Your task to perform on an android device: open a bookmark in the chrome app Image 0: 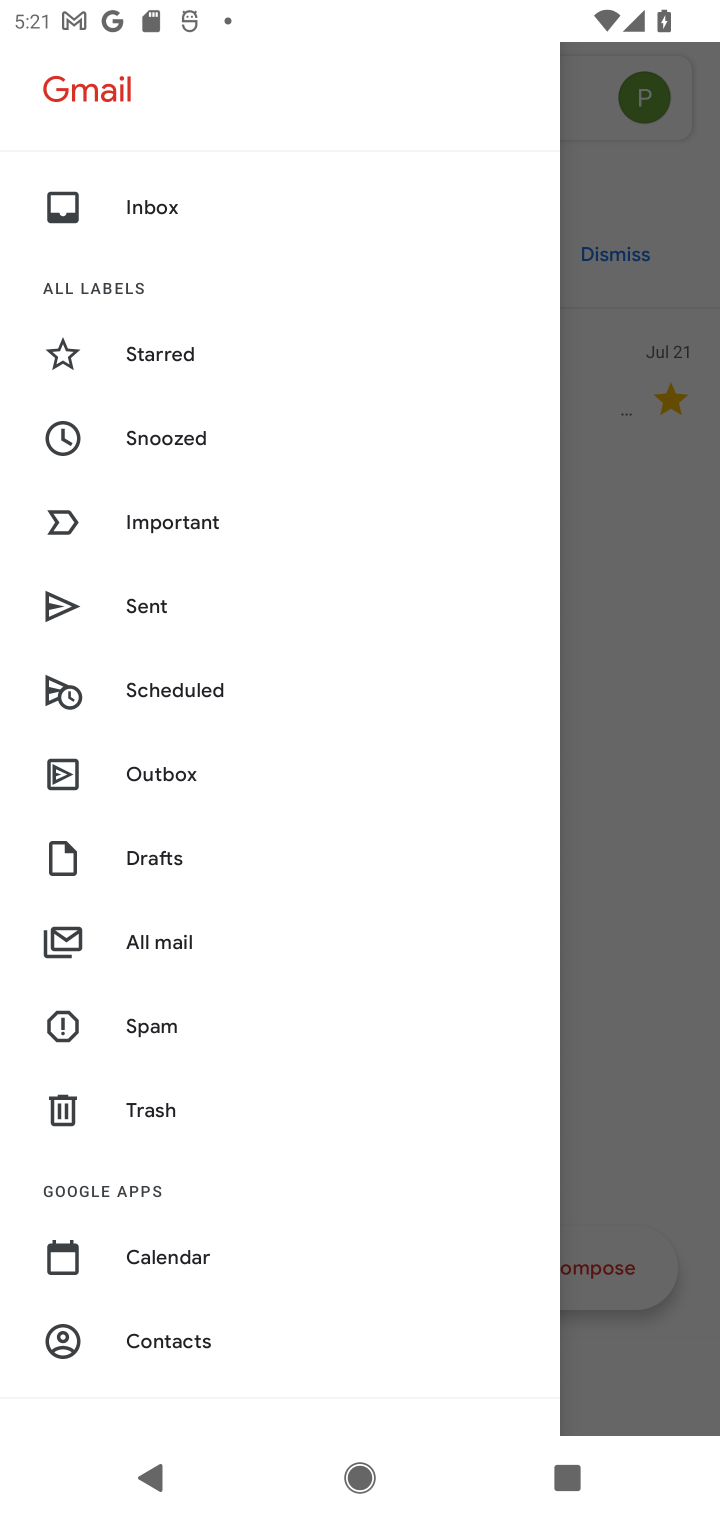
Step 0: press home button
Your task to perform on an android device: open a bookmark in the chrome app Image 1: 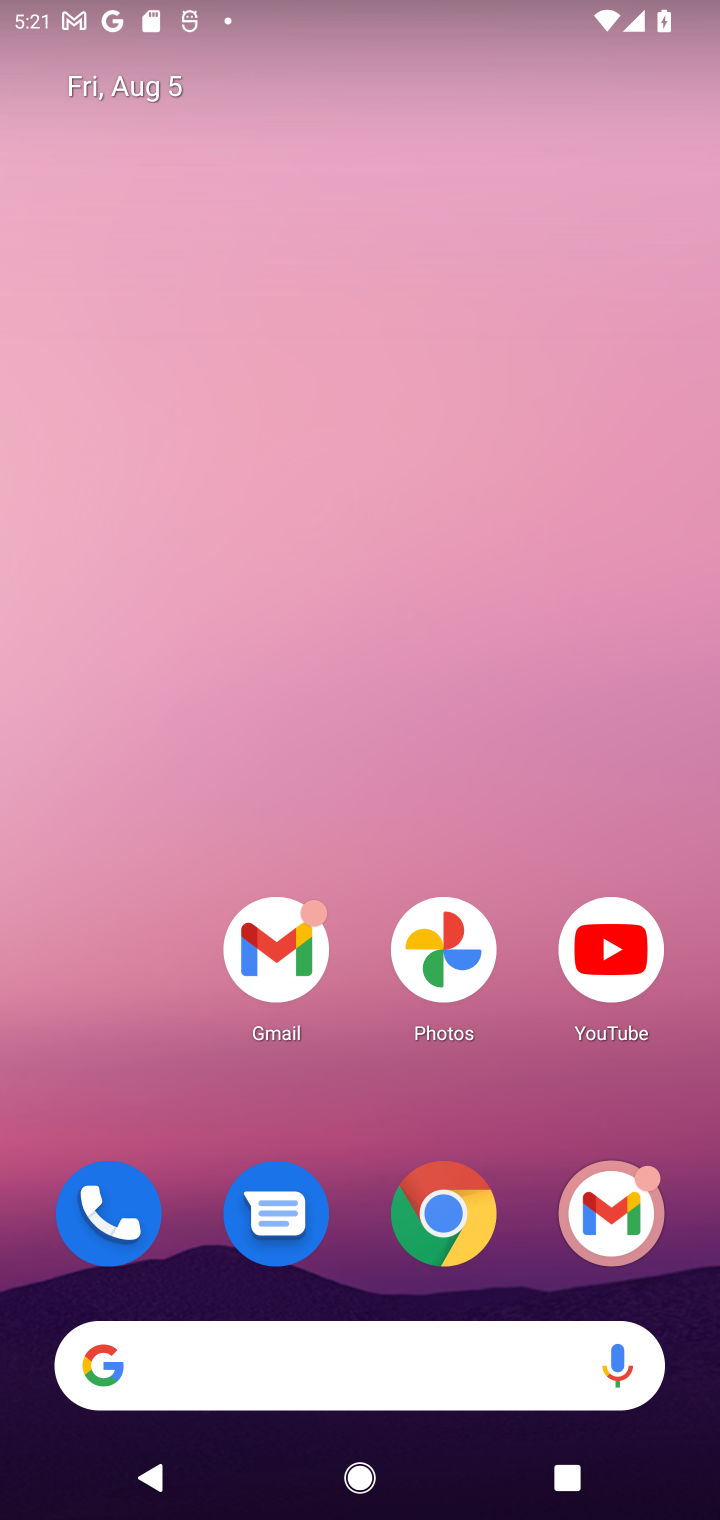
Step 1: click (479, 1202)
Your task to perform on an android device: open a bookmark in the chrome app Image 2: 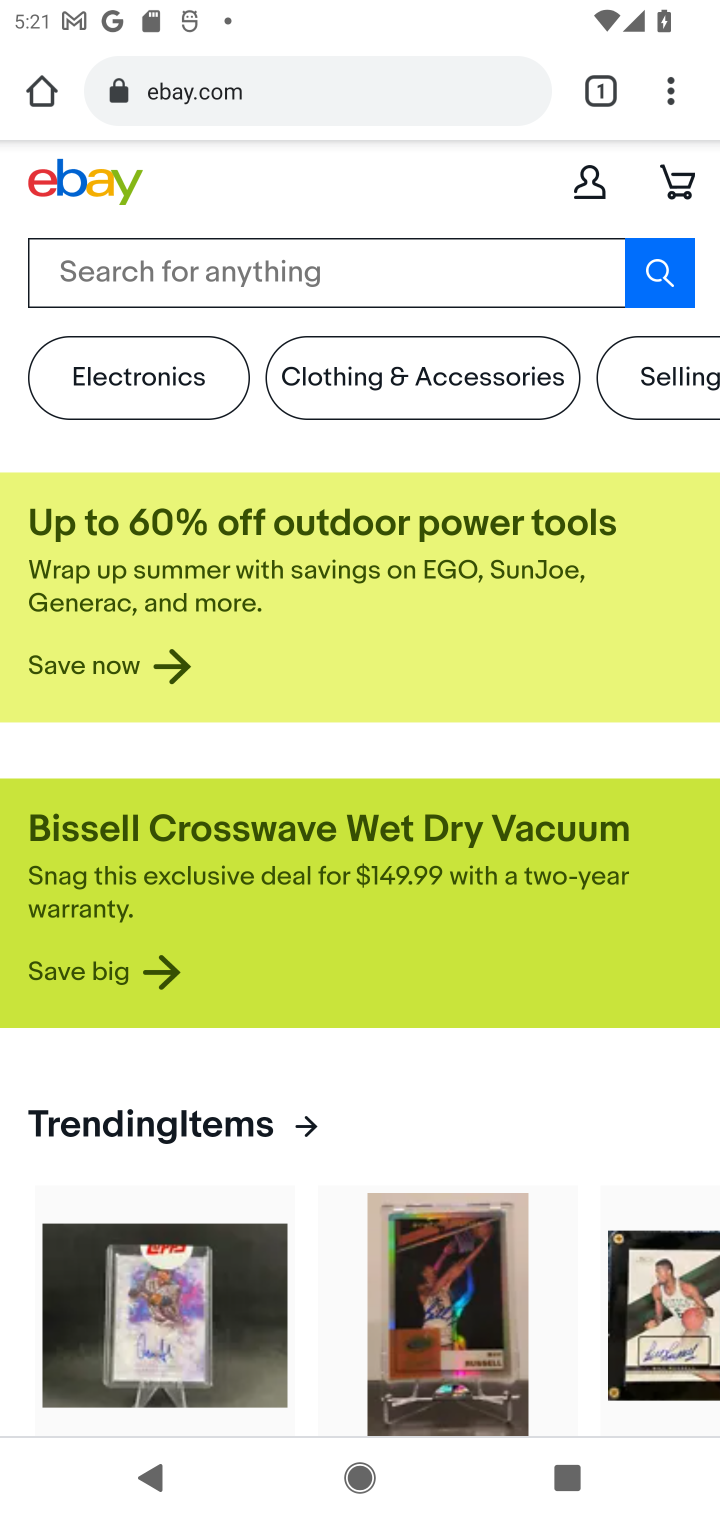
Step 2: click (666, 99)
Your task to perform on an android device: open a bookmark in the chrome app Image 3: 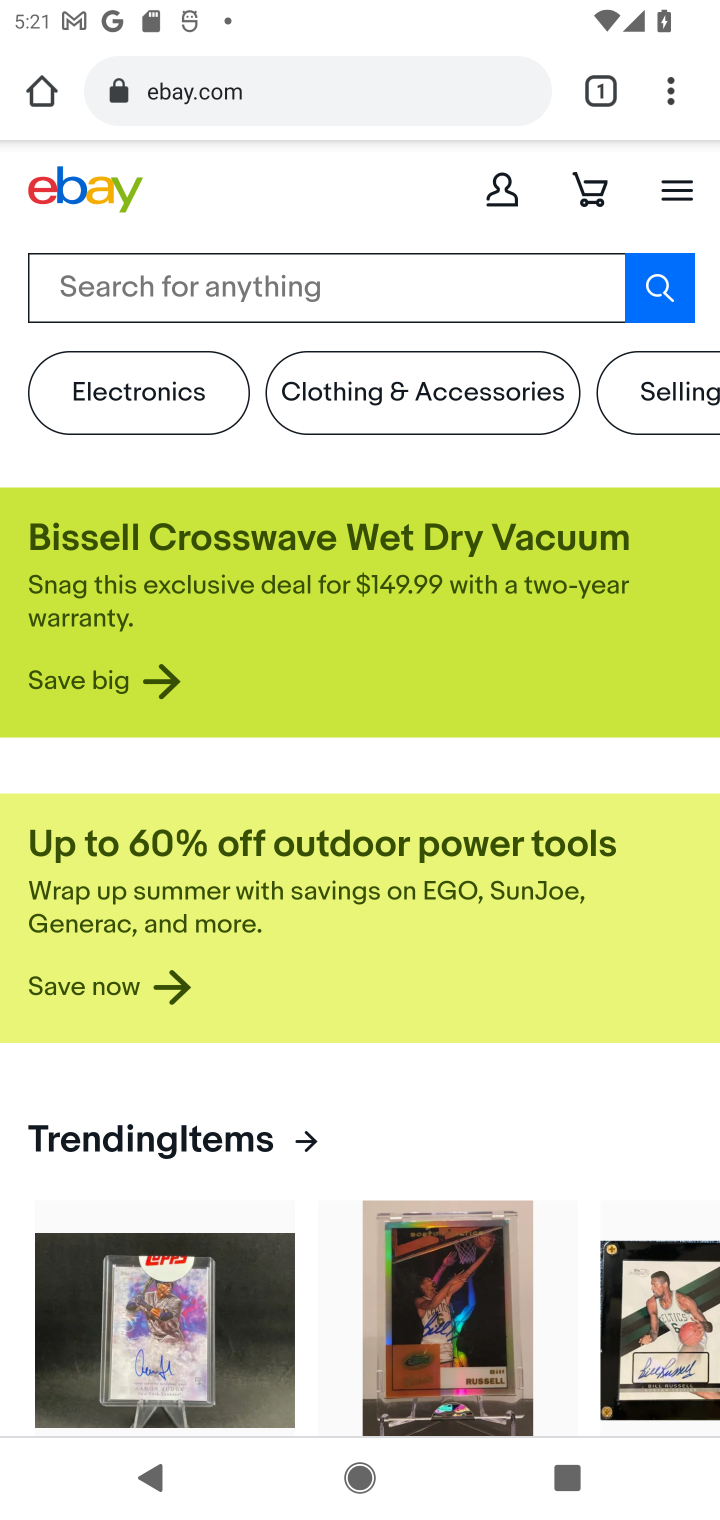
Step 3: click (666, 99)
Your task to perform on an android device: open a bookmark in the chrome app Image 4: 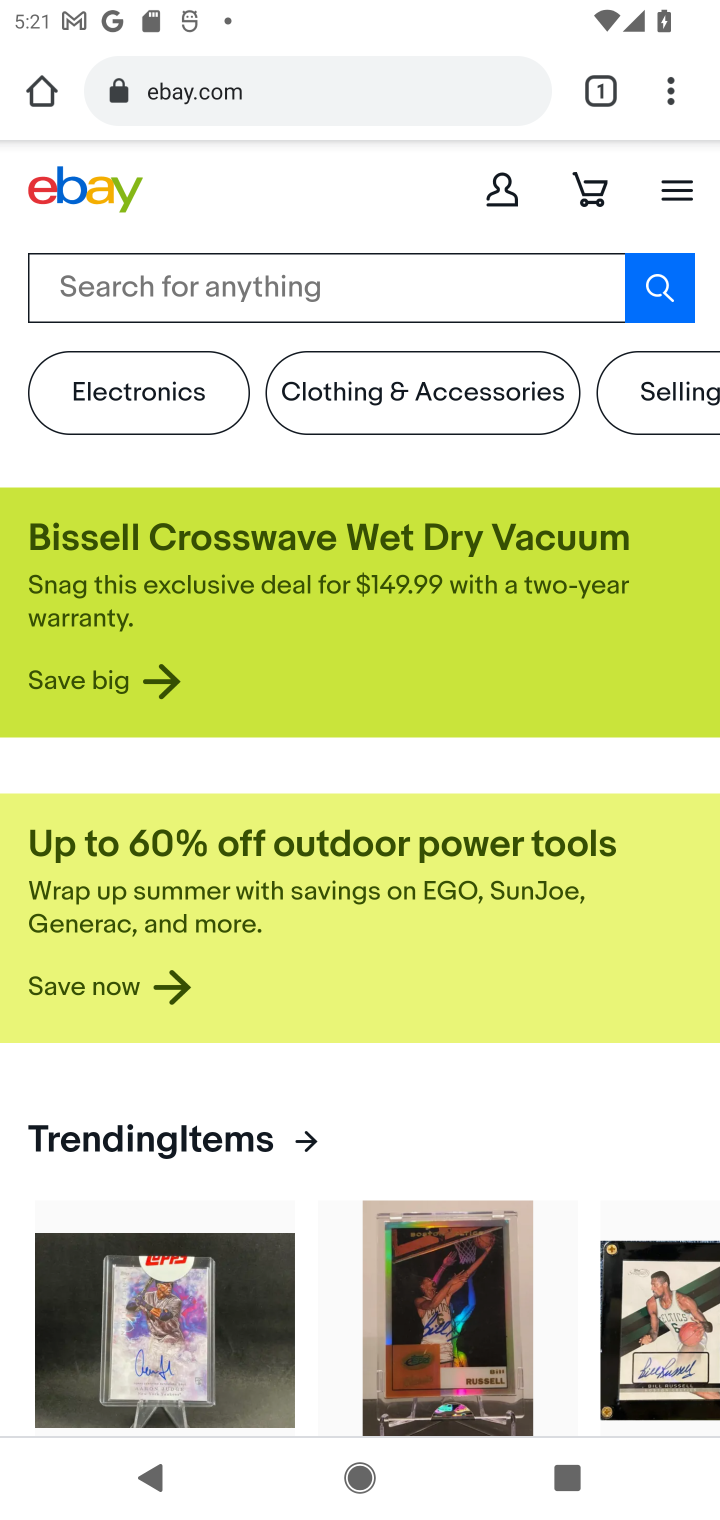
Step 4: task complete